Your task to perform on an android device: create a new album in the google photos Image 0: 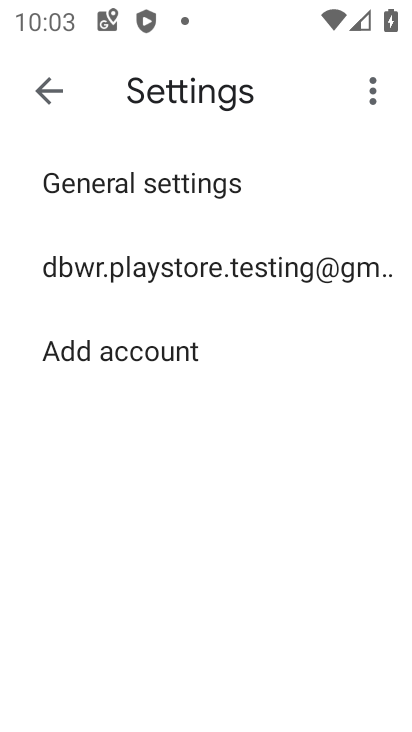
Step 0: press home button
Your task to perform on an android device: create a new album in the google photos Image 1: 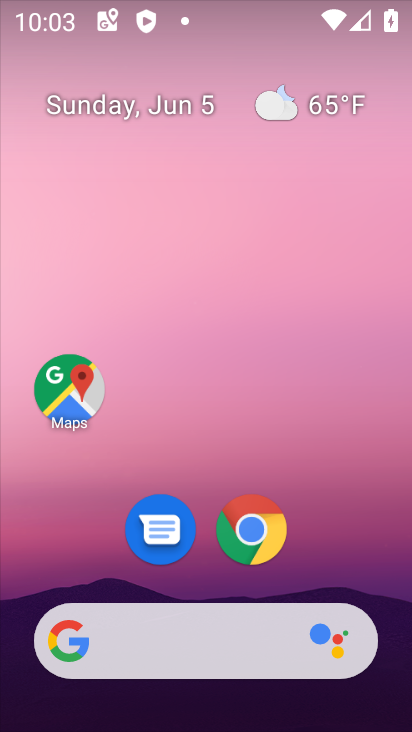
Step 1: drag from (220, 710) to (217, 37)
Your task to perform on an android device: create a new album in the google photos Image 2: 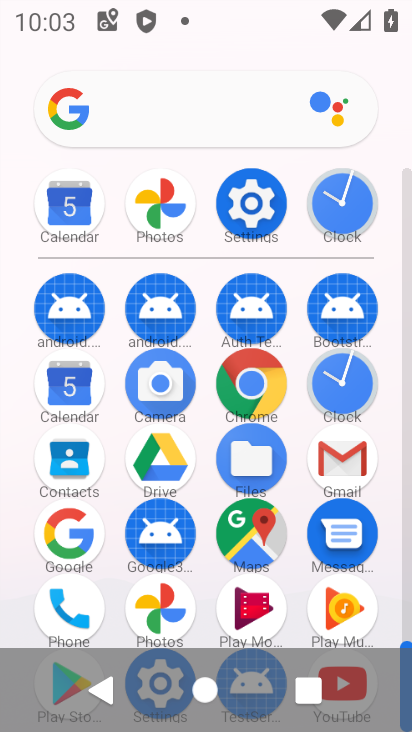
Step 2: click (148, 598)
Your task to perform on an android device: create a new album in the google photos Image 3: 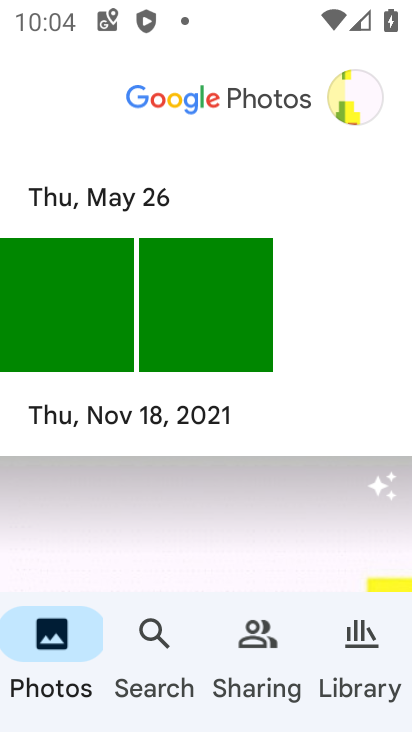
Step 3: click (189, 321)
Your task to perform on an android device: create a new album in the google photos Image 4: 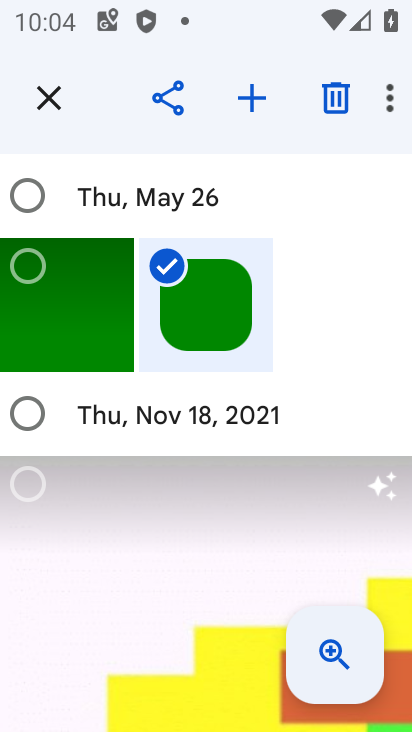
Step 4: click (253, 101)
Your task to perform on an android device: create a new album in the google photos Image 5: 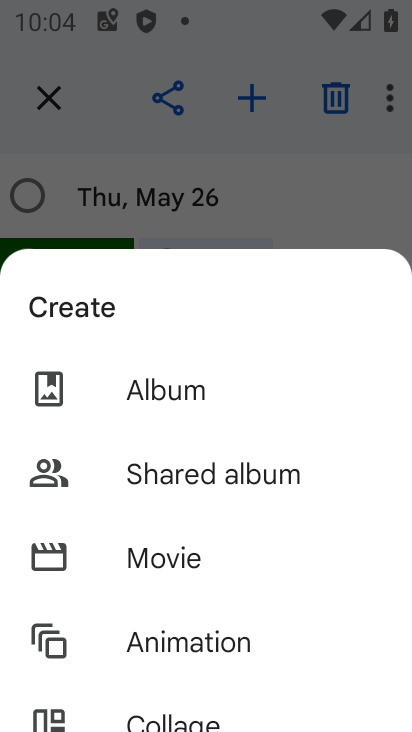
Step 5: click (250, 395)
Your task to perform on an android device: create a new album in the google photos Image 6: 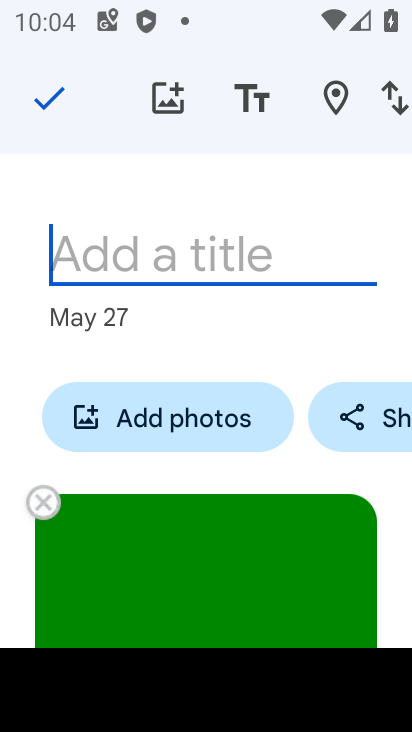
Step 6: type "kjhbi"
Your task to perform on an android device: create a new album in the google photos Image 7: 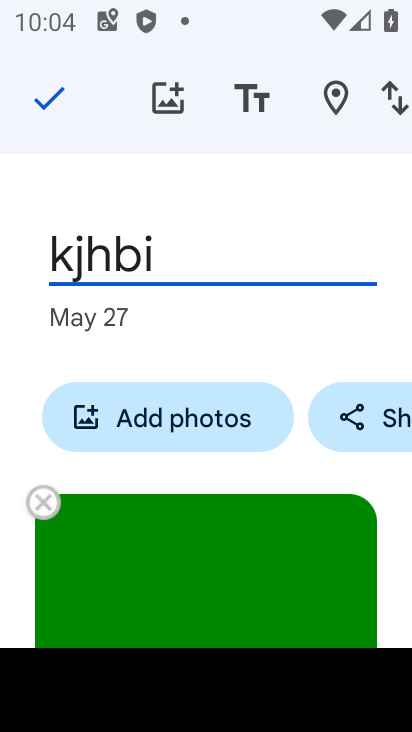
Step 7: click (59, 107)
Your task to perform on an android device: create a new album in the google photos Image 8: 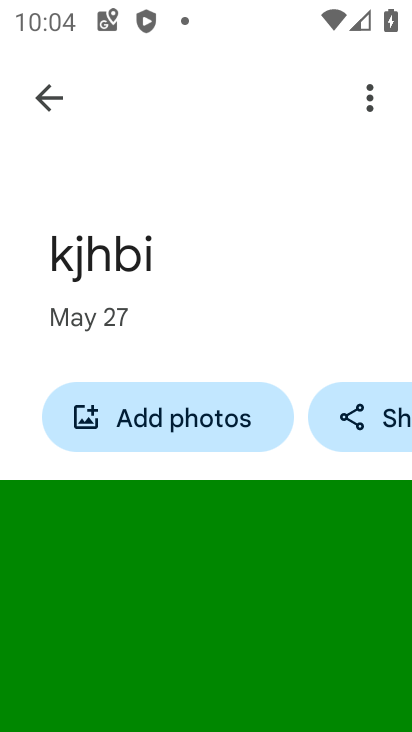
Step 8: task complete